Your task to perform on an android device: change the upload size in google photos Image 0: 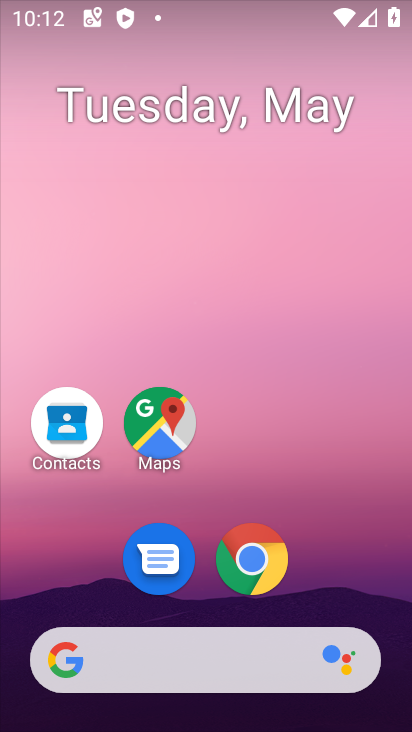
Step 0: click (353, 565)
Your task to perform on an android device: change the upload size in google photos Image 1: 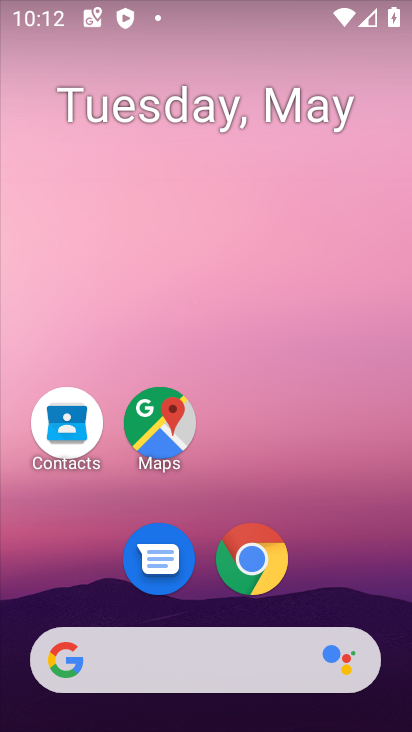
Step 1: drag from (353, 565) to (318, 339)
Your task to perform on an android device: change the upload size in google photos Image 2: 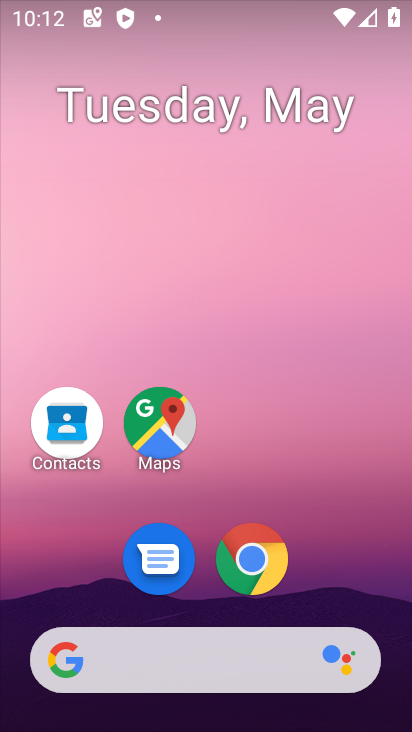
Step 2: drag from (349, 549) to (324, 205)
Your task to perform on an android device: change the upload size in google photos Image 3: 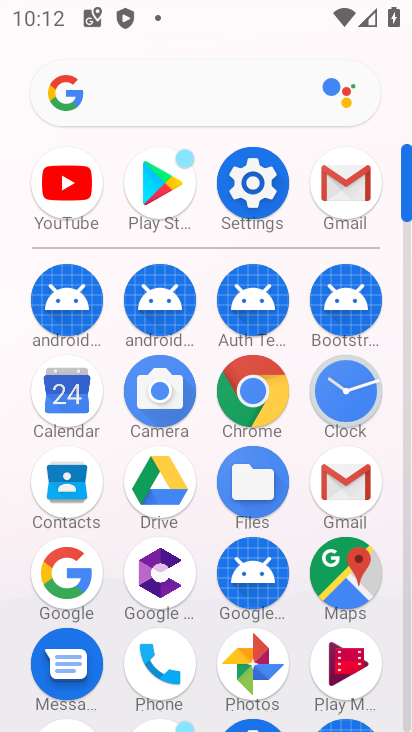
Step 3: click (255, 667)
Your task to perform on an android device: change the upload size in google photos Image 4: 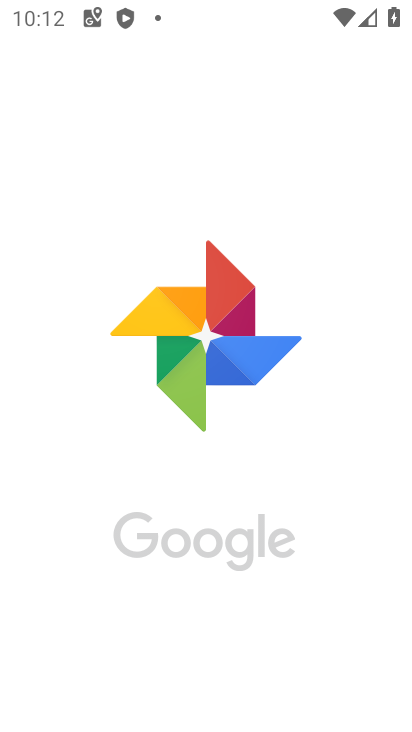
Step 4: task complete